Your task to perform on an android device: change alarm snooze length Image 0: 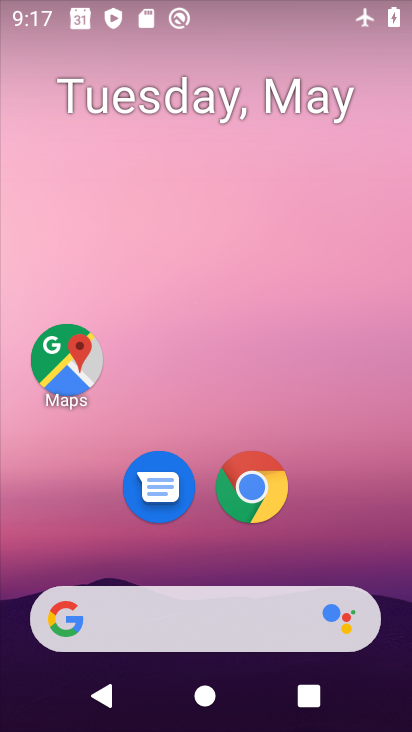
Step 0: drag from (179, 554) to (239, 147)
Your task to perform on an android device: change alarm snooze length Image 1: 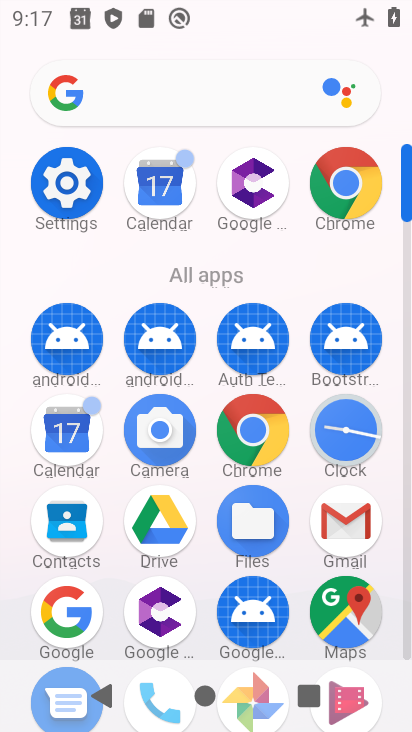
Step 1: click (337, 445)
Your task to perform on an android device: change alarm snooze length Image 2: 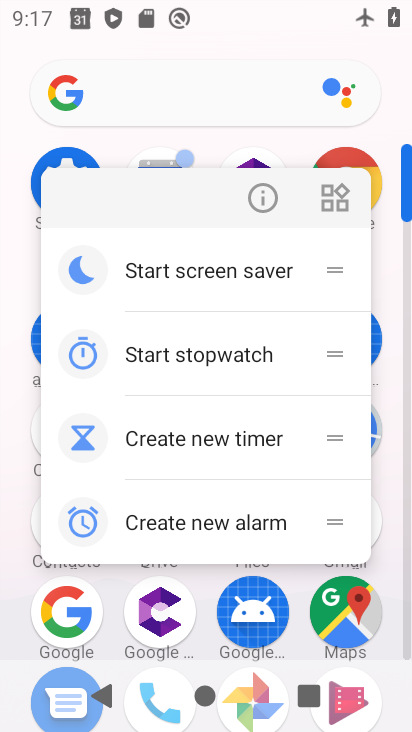
Step 2: click (258, 211)
Your task to perform on an android device: change alarm snooze length Image 3: 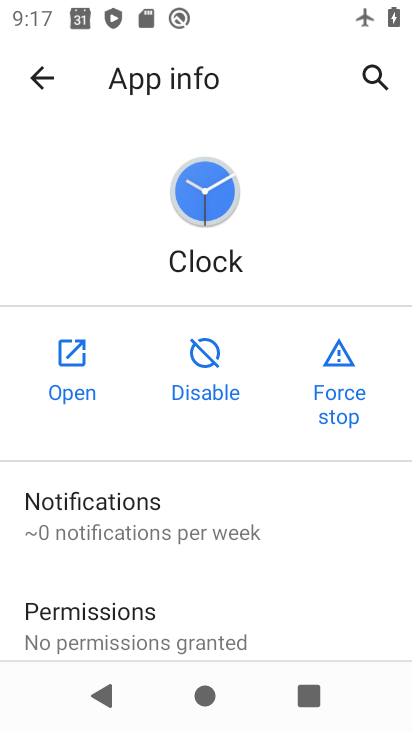
Step 3: click (53, 400)
Your task to perform on an android device: change alarm snooze length Image 4: 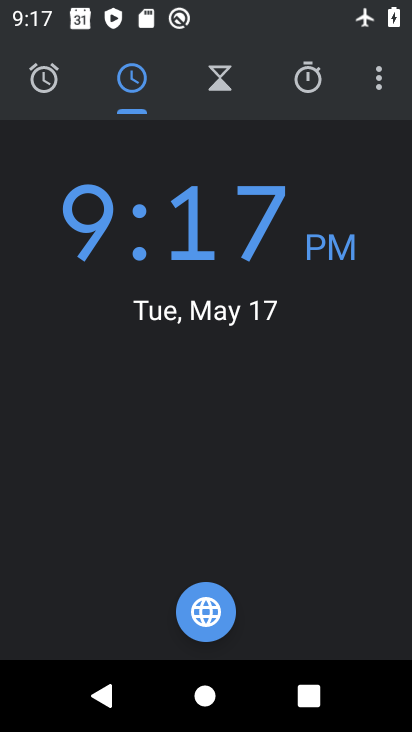
Step 4: click (365, 89)
Your task to perform on an android device: change alarm snooze length Image 5: 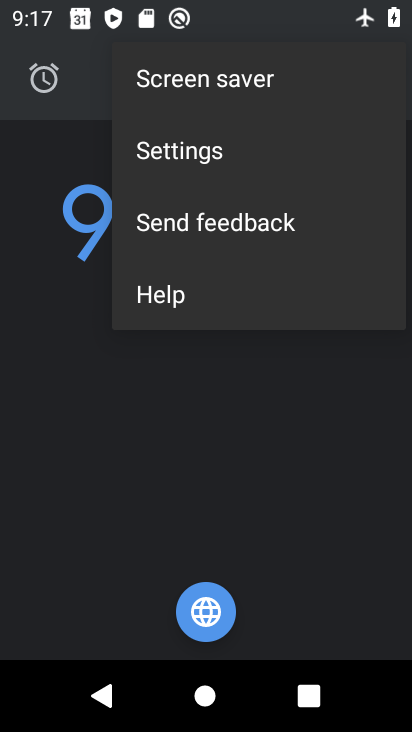
Step 5: click (191, 126)
Your task to perform on an android device: change alarm snooze length Image 6: 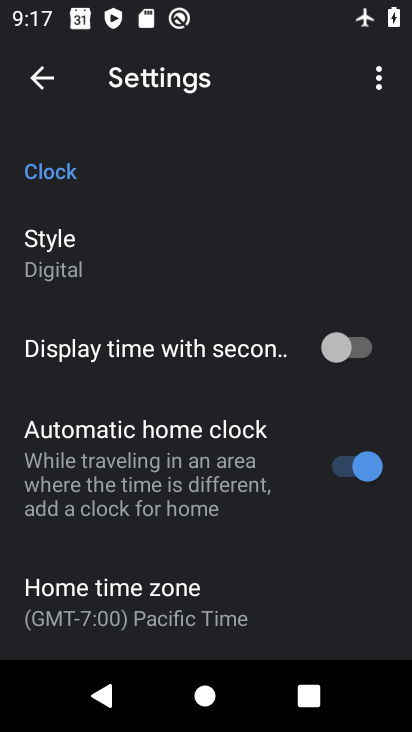
Step 6: drag from (127, 592) to (159, 100)
Your task to perform on an android device: change alarm snooze length Image 7: 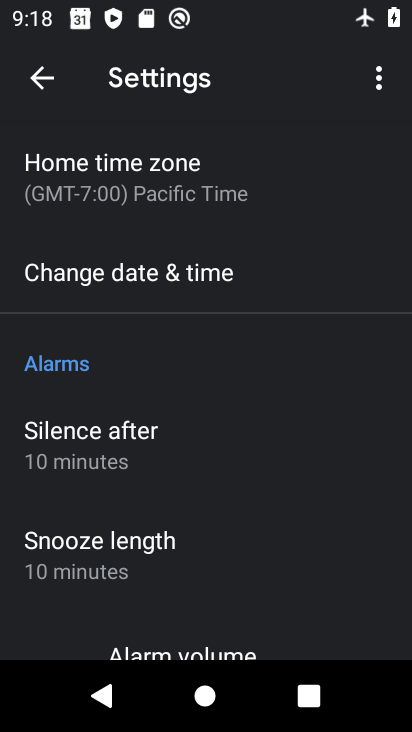
Step 7: click (150, 539)
Your task to perform on an android device: change alarm snooze length Image 8: 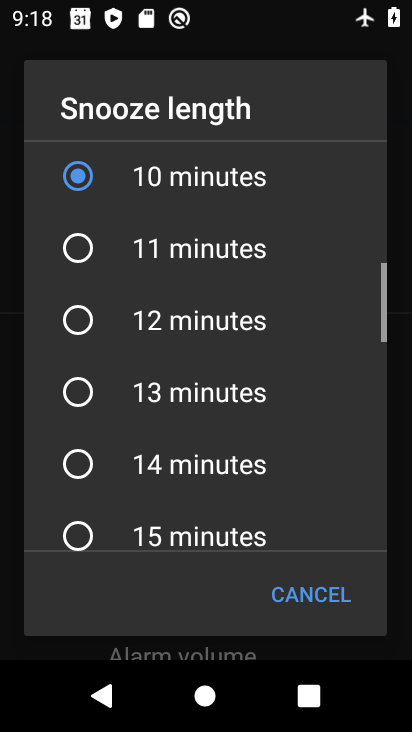
Step 8: click (201, 309)
Your task to perform on an android device: change alarm snooze length Image 9: 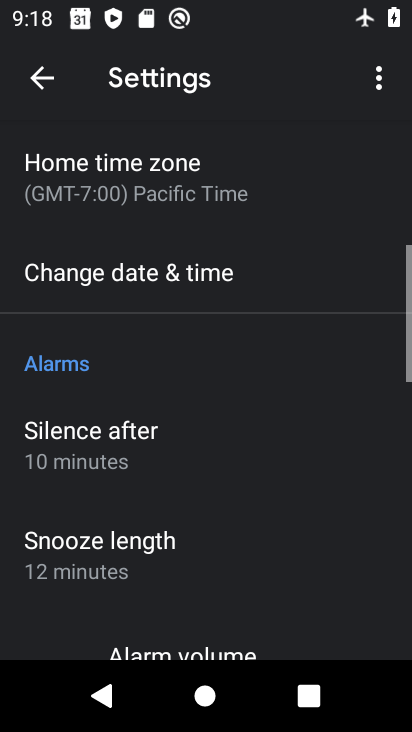
Step 9: task complete